Your task to perform on an android device: change notification settings in the gmail app Image 0: 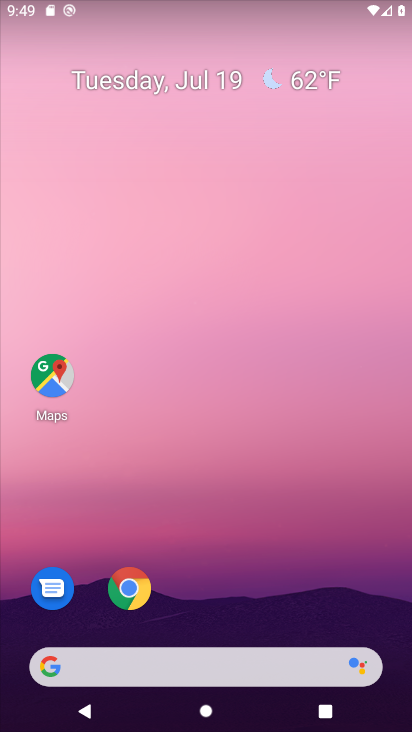
Step 0: drag from (180, 608) to (195, 149)
Your task to perform on an android device: change notification settings in the gmail app Image 1: 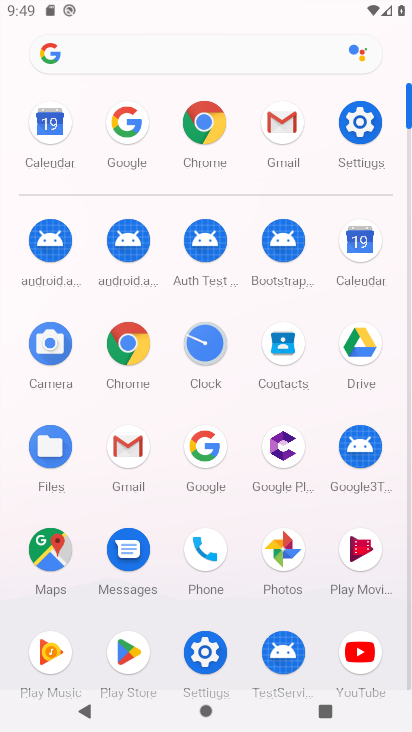
Step 1: click (284, 129)
Your task to perform on an android device: change notification settings in the gmail app Image 2: 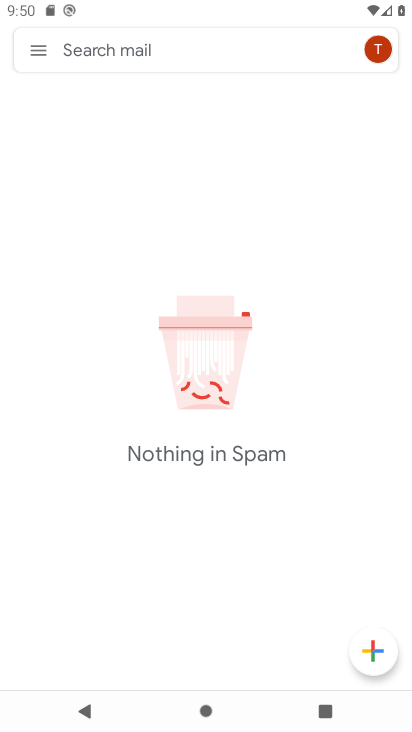
Step 2: click (35, 50)
Your task to perform on an android device: change notification settings in the gmail app Image 3: 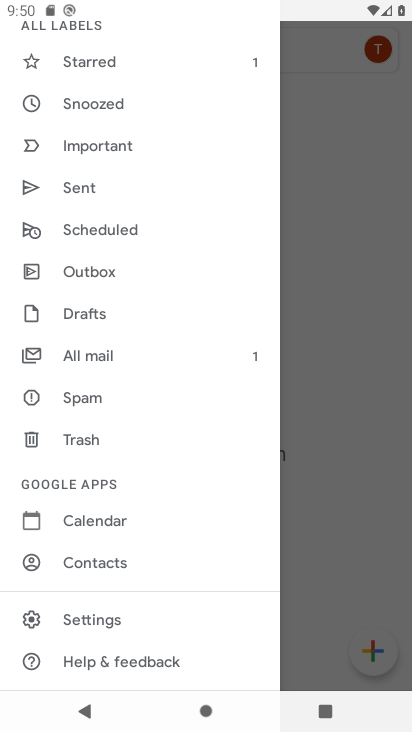
Step 3: click (85, 617)
Your task to perform on an android device: change notification settings in the gmail app Image 4: 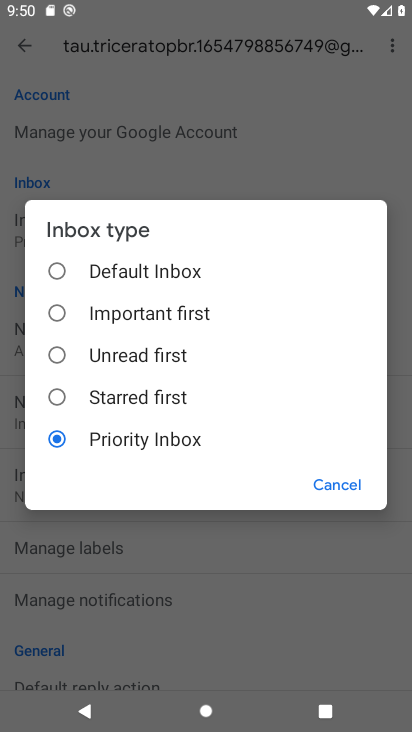
Step 4: click (342, 483)
Your task to perform on an android device: change notification settings in the gmail app Image 5: 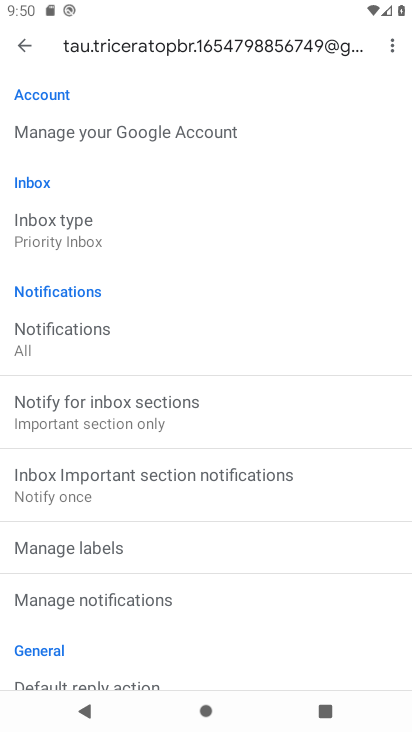
Step 5: click (124, 602)
Your task to perform on an android device: change notification settings in the gmail app Image 6: 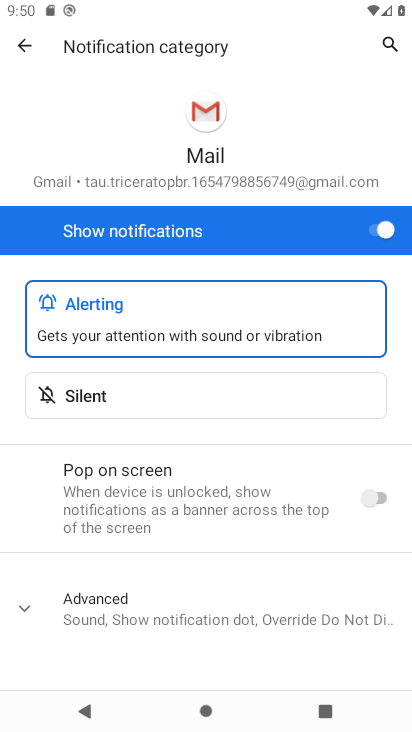
Step 6: click (382, 230)
Your task to perform on an android device: change notification settings in the gmail app Image 7: 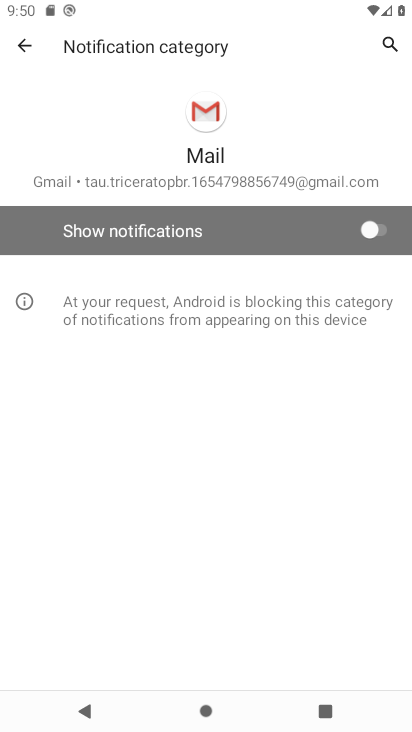
Step 7: task complete